Your task to perform on an android device: add a contact Image 0: 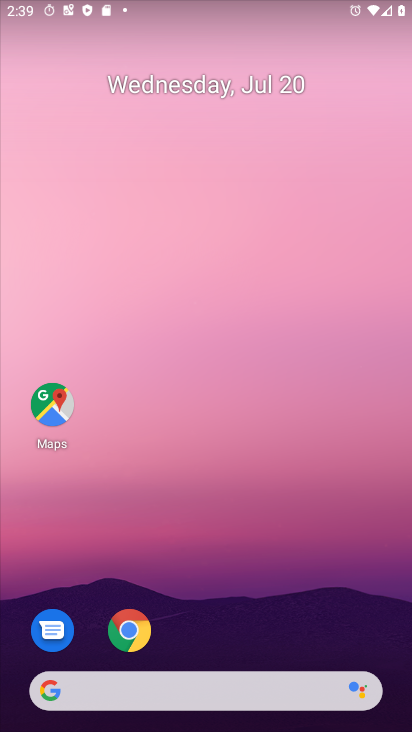
Step 0: drag from (192, 649) to (284, 1)
Your task to perform on an android device: add a contact Image 1: 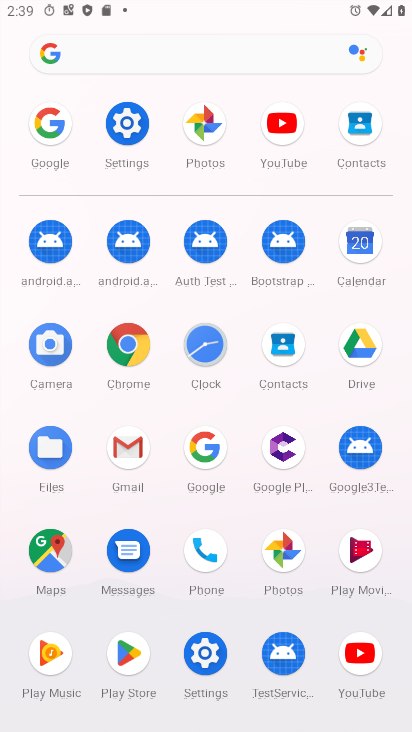
Step 1: click (281, 340)
Your task to perform on an android device: add a contact Image 2: 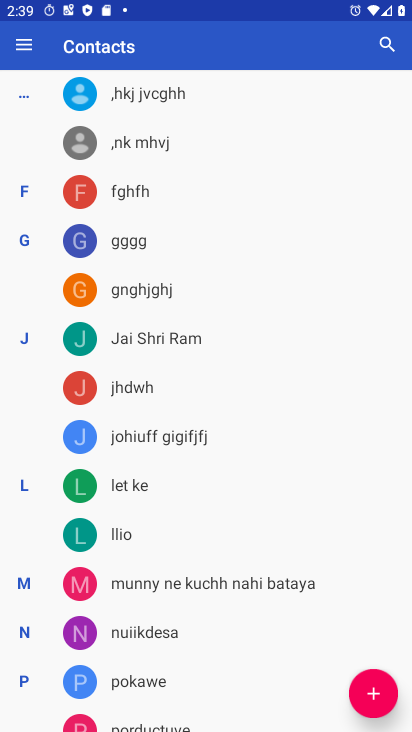
Step 2: click (373, 692)
Your task to perform on an android device: add a contact Image 3: 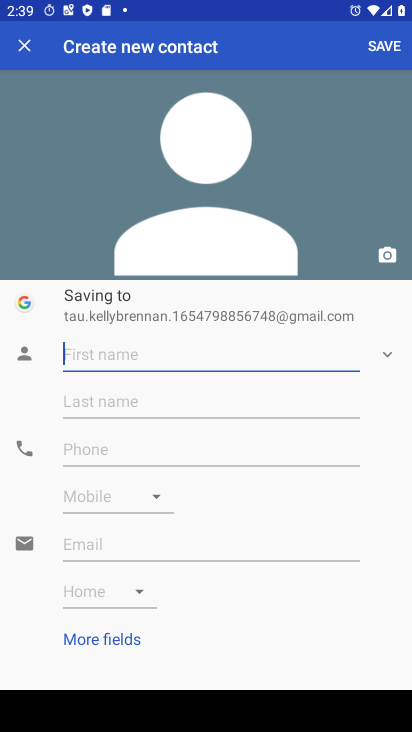
Step 3: type "nuytop"
Your task to perform on an android device: add a contact Image 4: 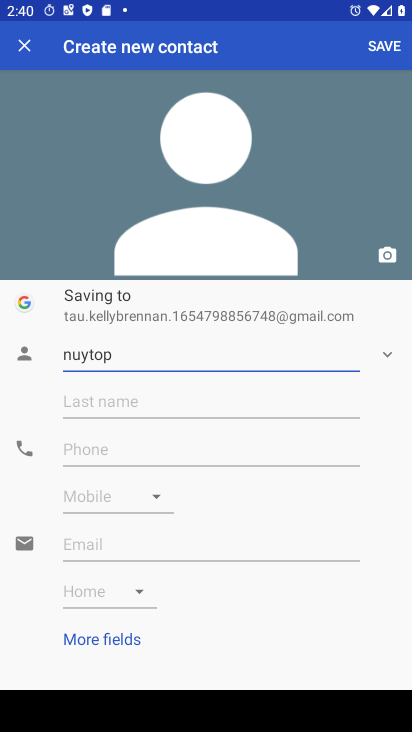
Step 4: click (74, 436)
Your task to perform on an android device: add a contact Image 5: 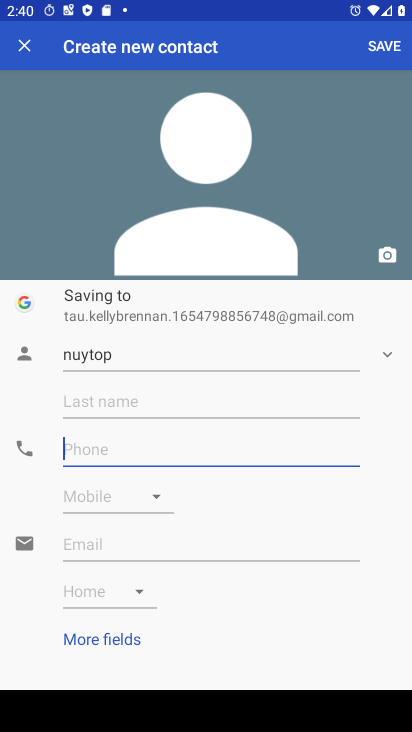
Step 5: type "980776654"
Your task to perform on an android device: add a contact Image 6: 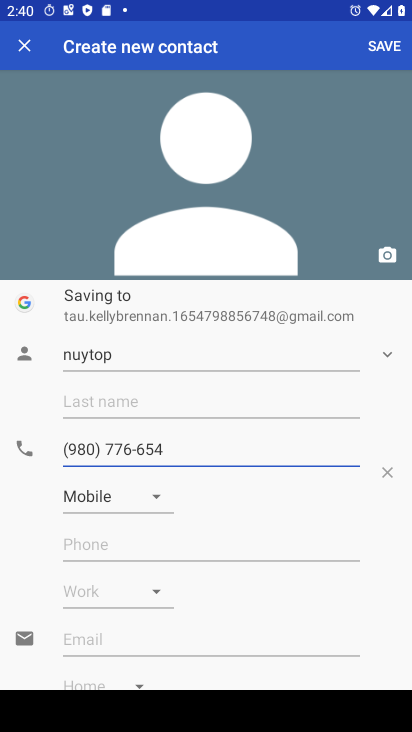
Step 6: click (374, 43)
Your task to perform on an android device: add a contact Image 7: 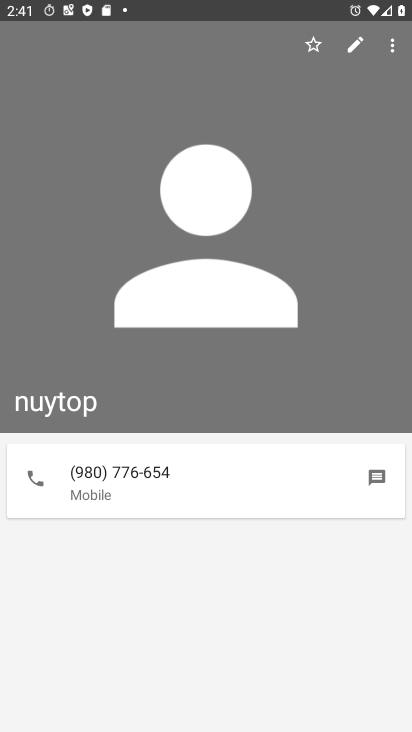
Step 7: task complete